Your task to perform on an android device: uninstall "WhatsApp Messenger" Image 0: 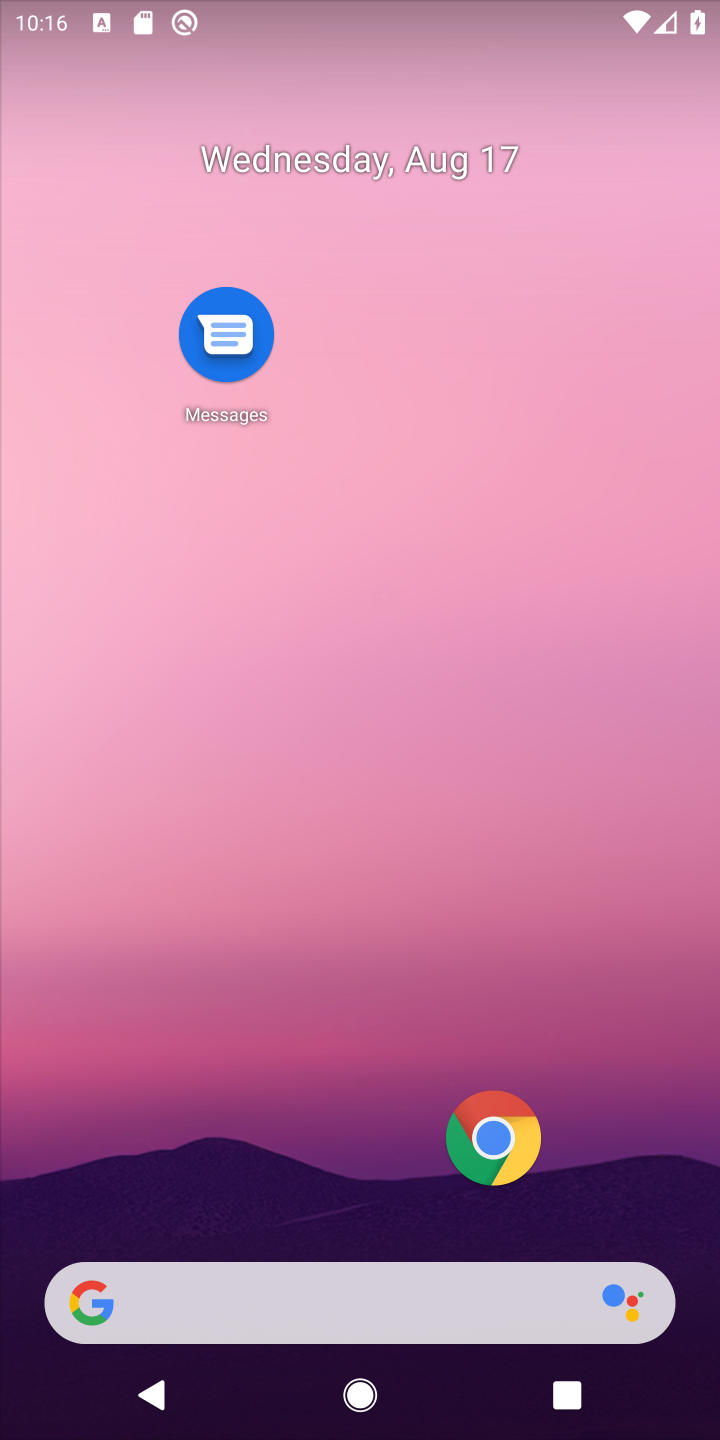
Step 0: drag from (248, 1170) to (298, 126)
Your task to perform on an android device: uninstall "WhatsApp Messenger" Image 1: 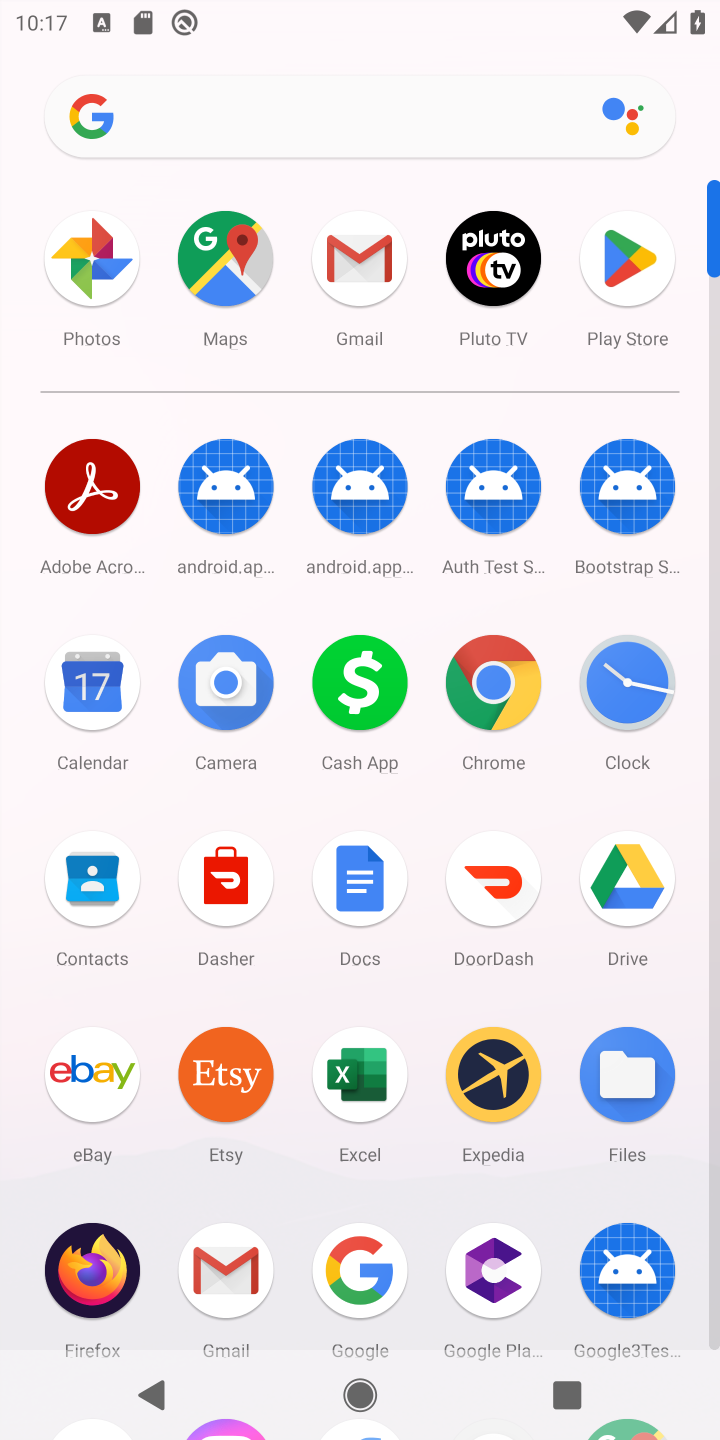
Step 1: click (625, 265)
Your task to perform on an android device: uninstall "WhatsApp Messenger" Image 2: 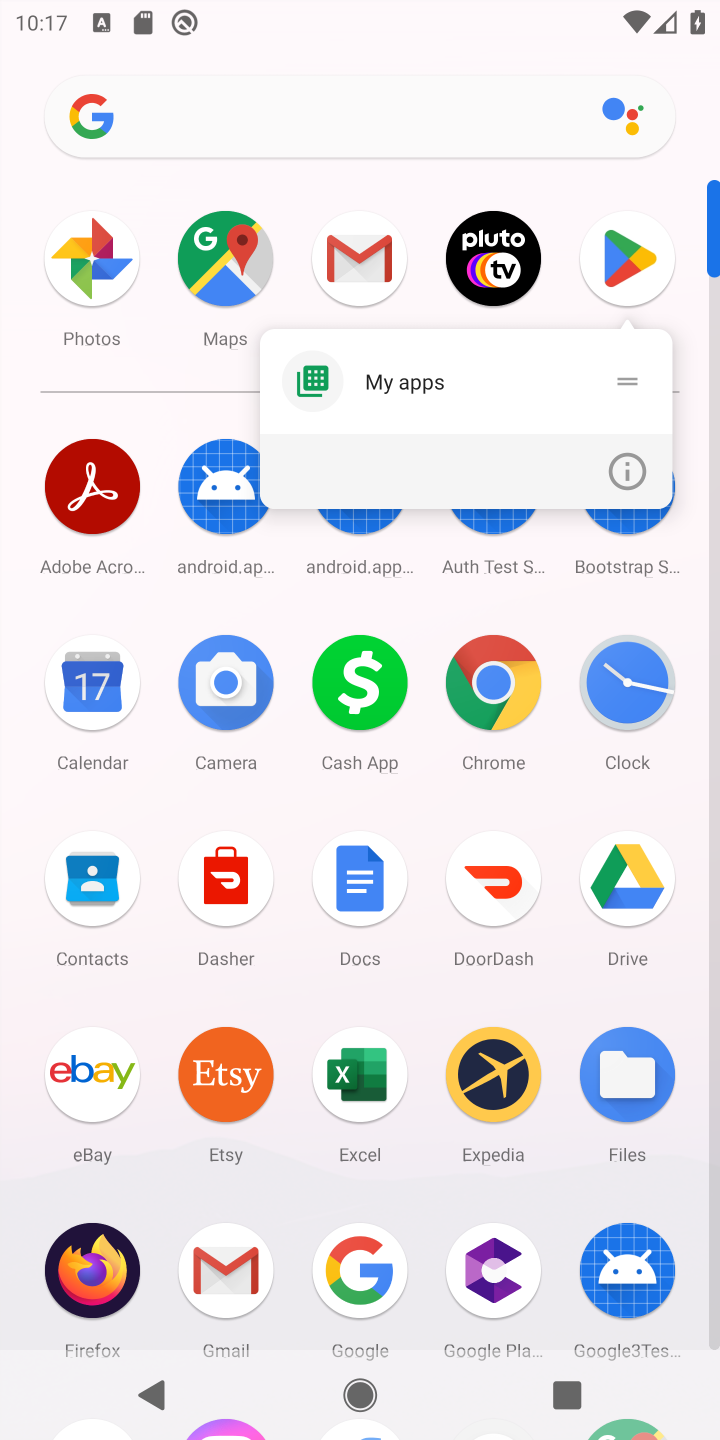
Step 2: click (634, 249)
Your task to perform on an android device: uninstall "WhatsApp Messenger" Image 3: 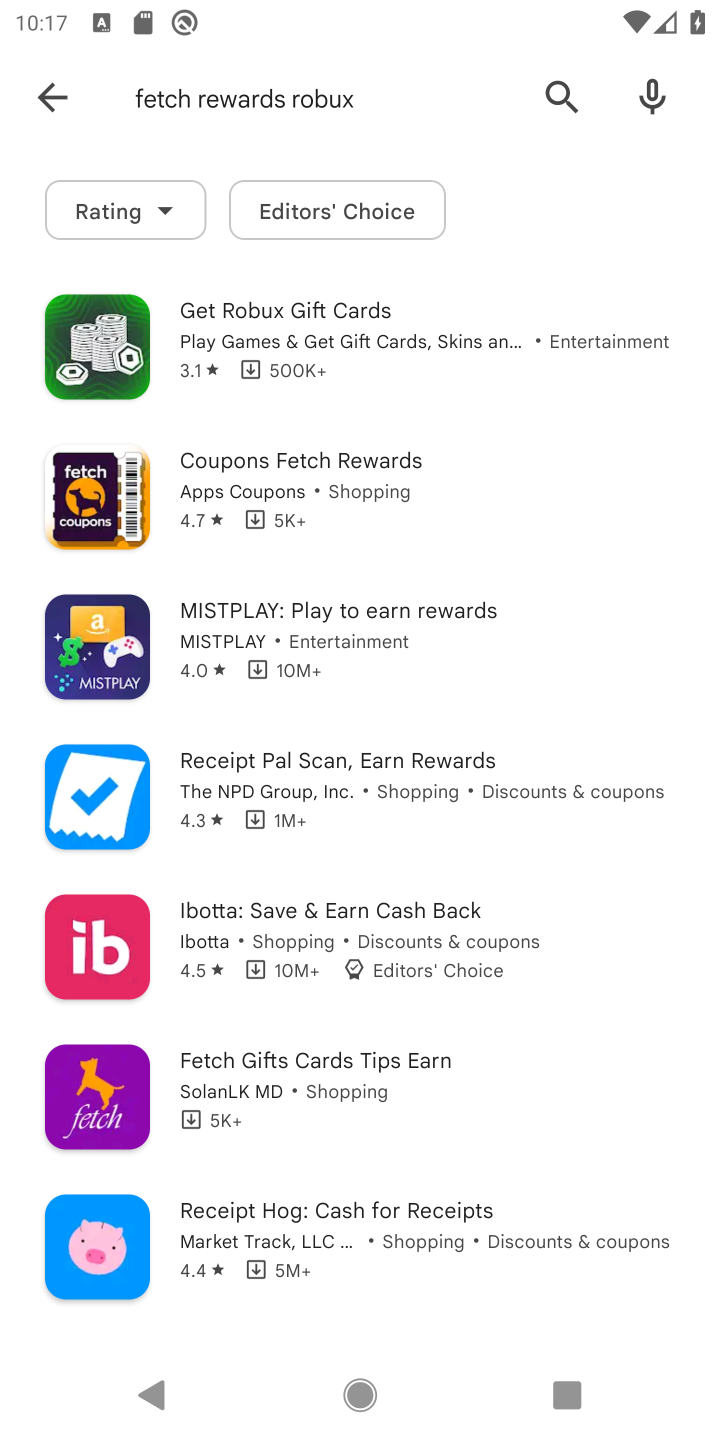
Step 3: click (71, 86)
Your task to perform on an android device: uninstall "WhatsApp Messenger" Image 4: 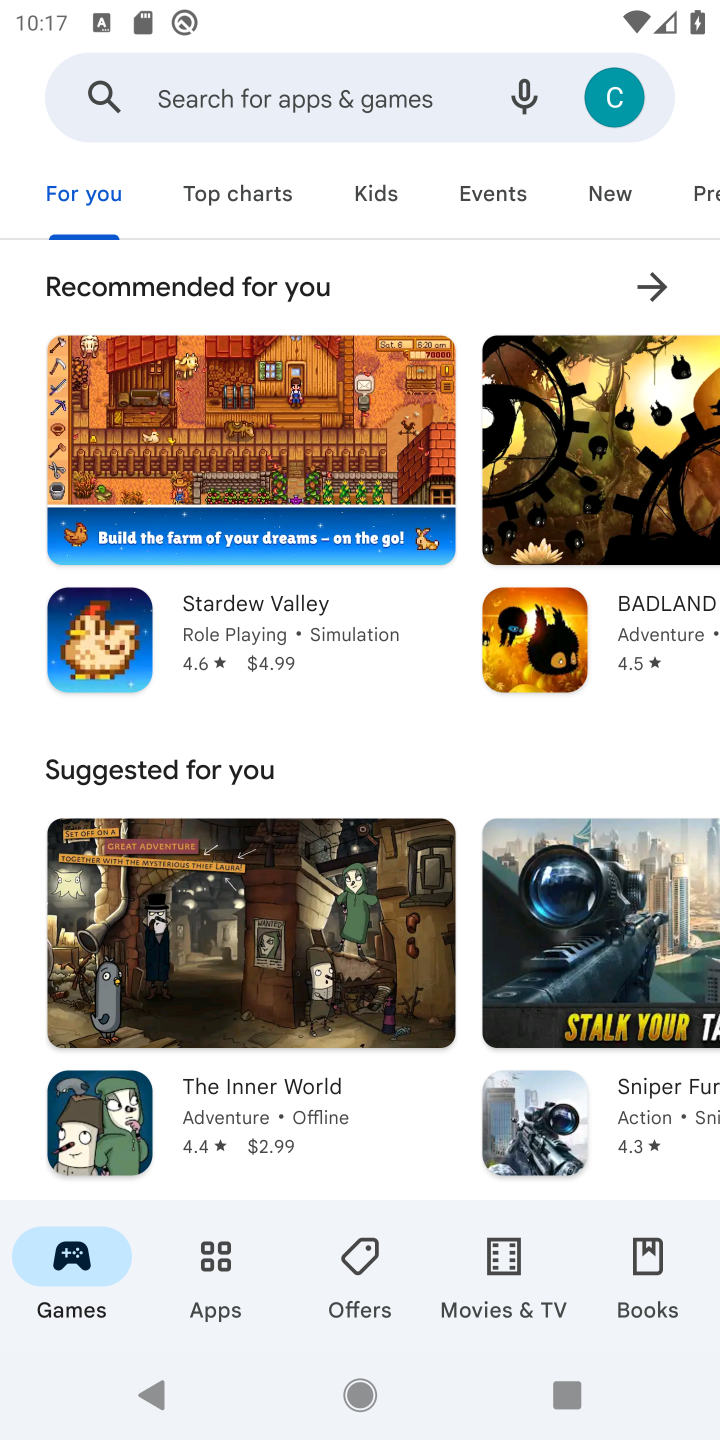
Step 4: click (193, 90)
Your task to perform on an android device: uninstall "WhatsApp Messenger" Image 5: 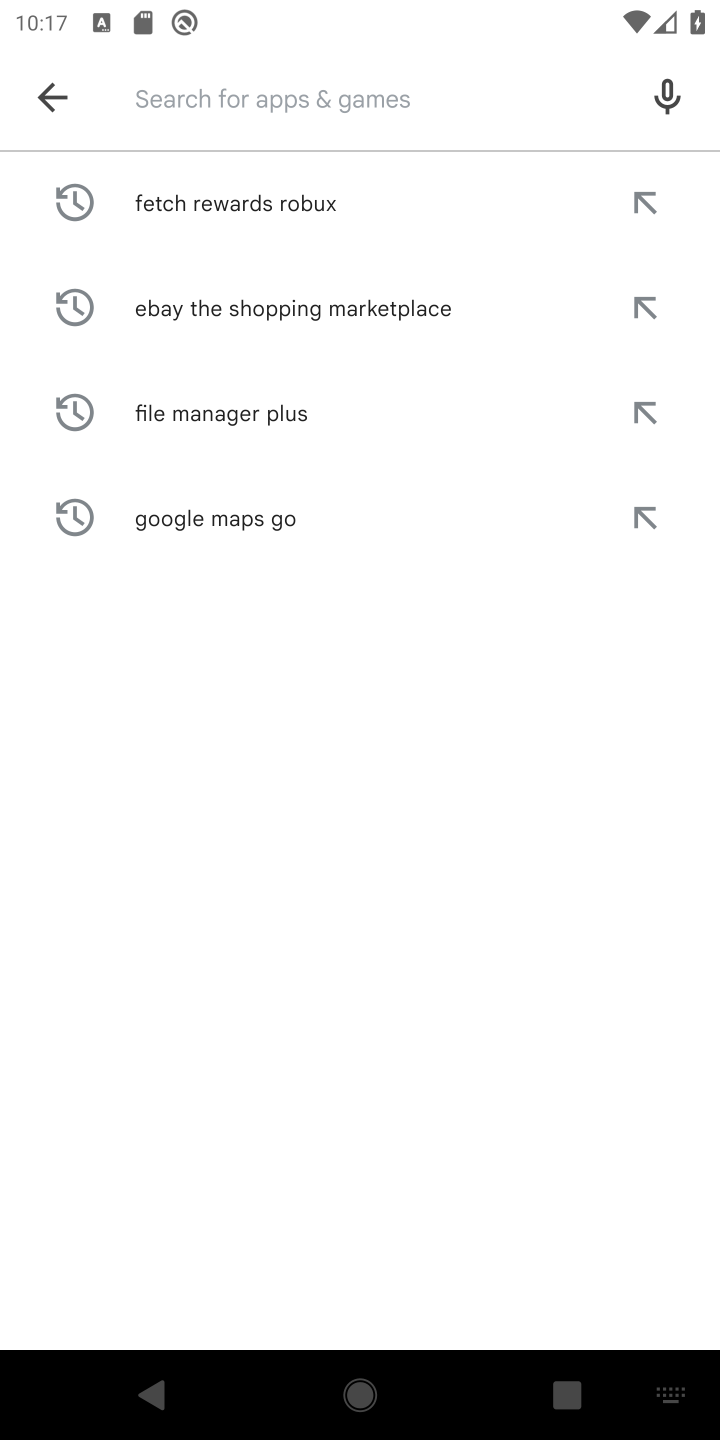
Step 5: type "whatsapp messenger "
Your task to perform on an android device: uninstall "WhatsApp Messenger" Image 6: 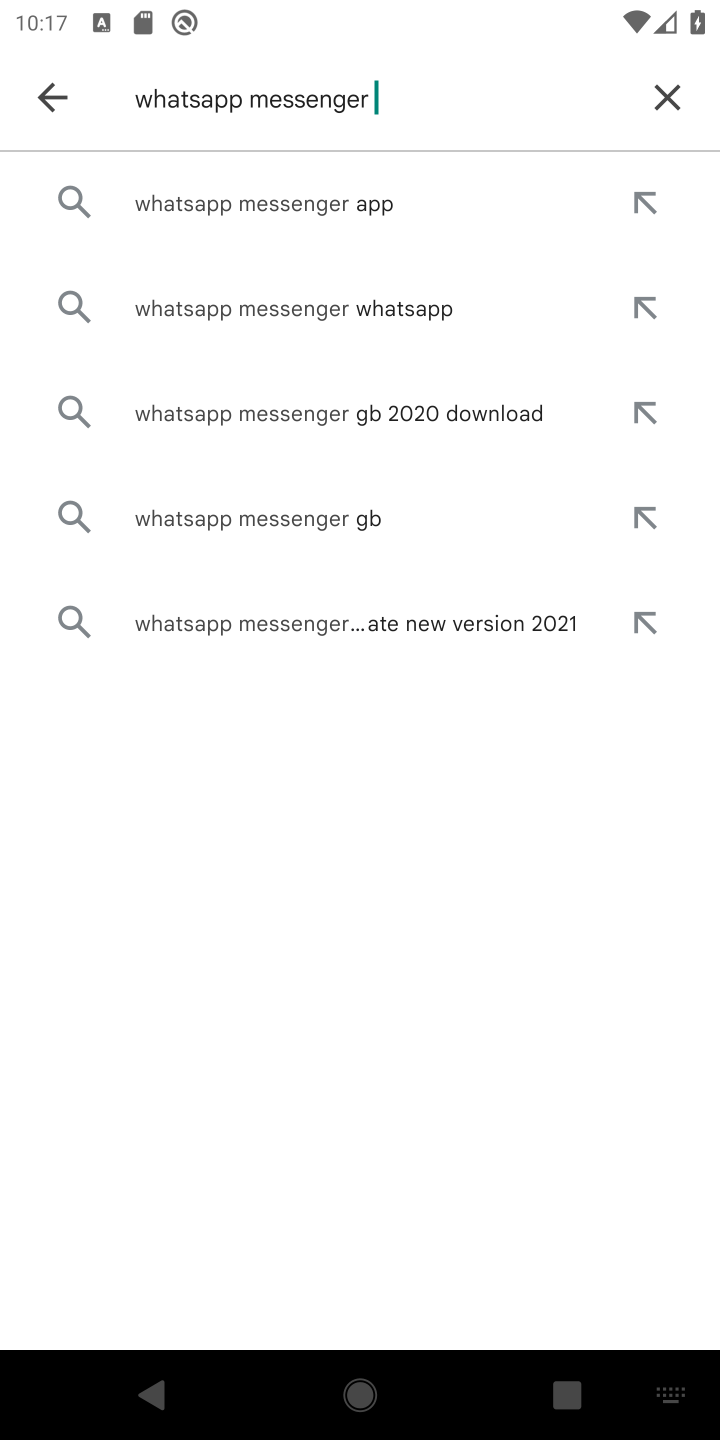
Step 6: click (323, 211)
Your task to perform on an android device: uninstall "WhatsApp Messenger" Image 7: 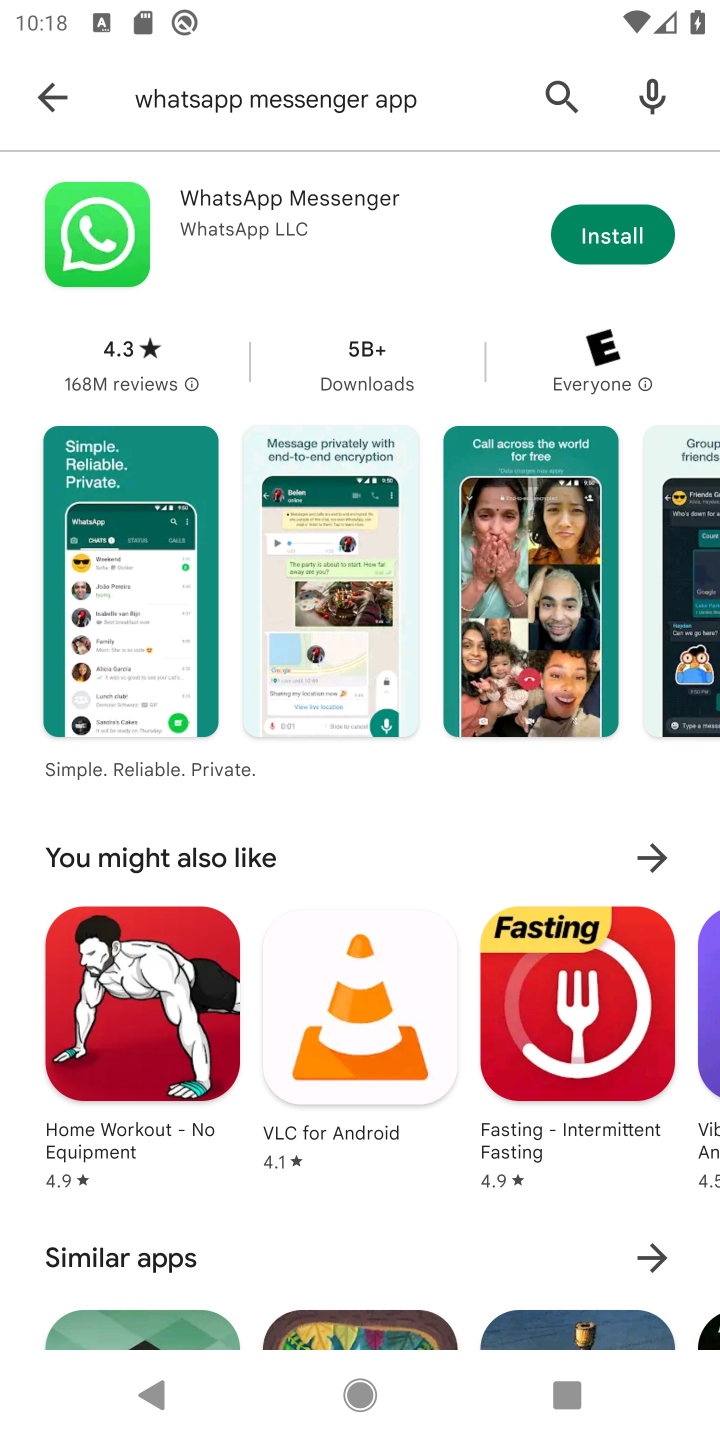
Step 7: click (271, 195)
Your task to perform on an android device: uninstall "WhatsApp Messenger" Image 8: 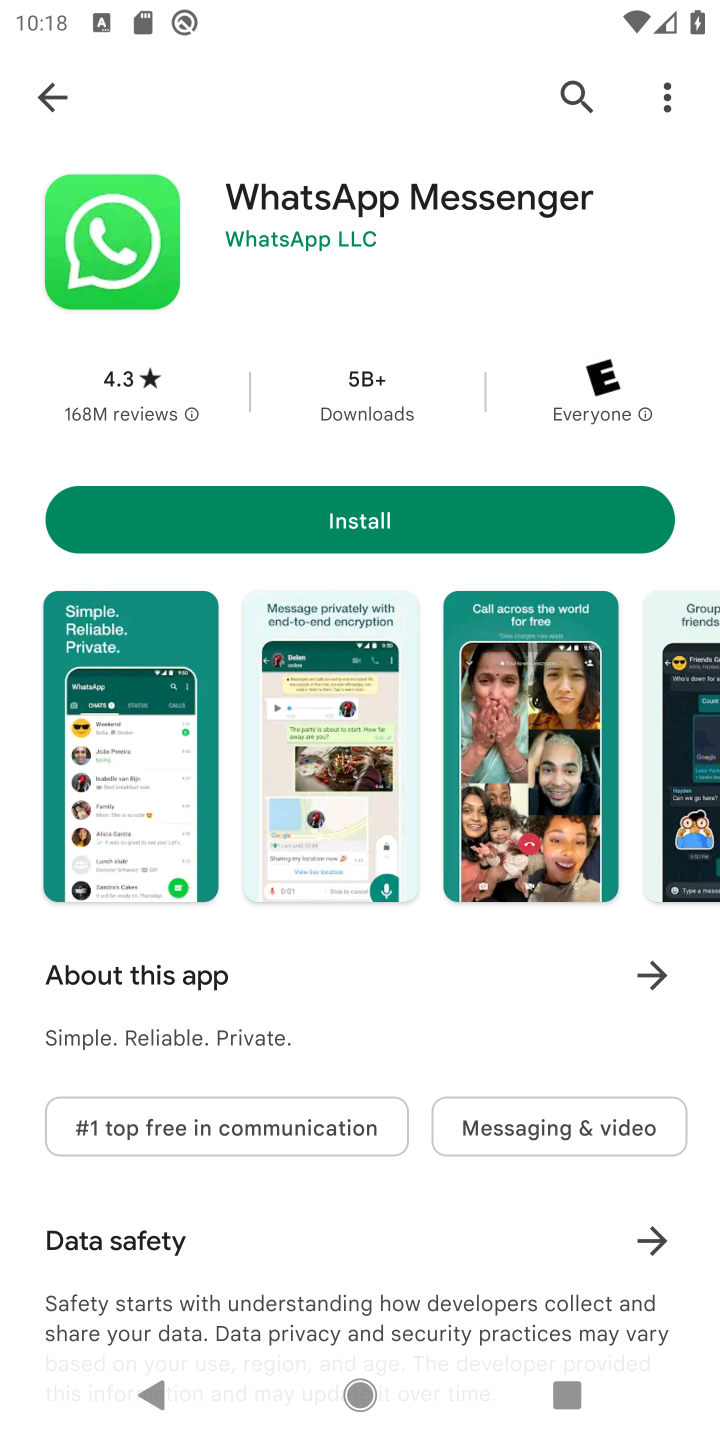
Step 8: task complete